Your task to perform on an android device: uninstall "Paramount+ | Peak Streaming" Image 0: 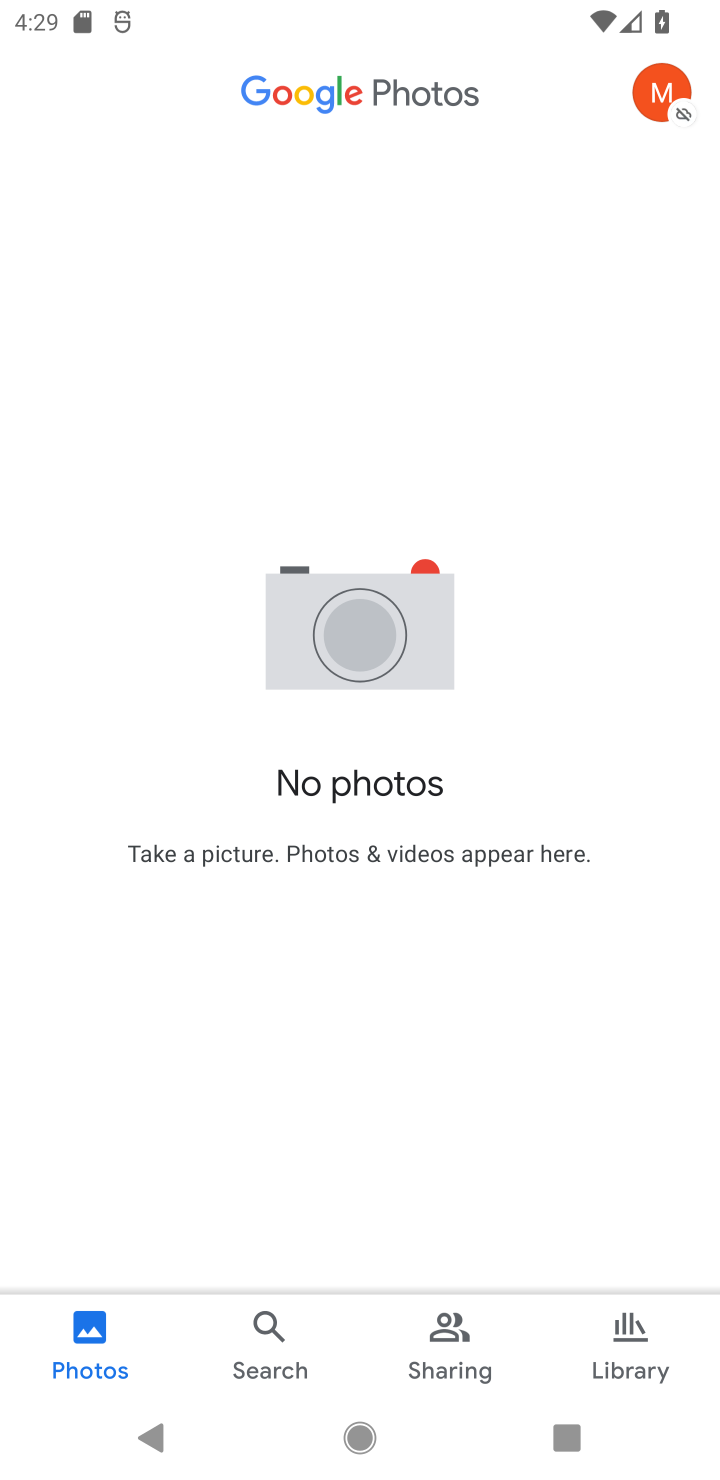
Step 0: press home button
Your task to perform on an android device: uninstall "Paramount+ | Peak Streaming" Image 1: 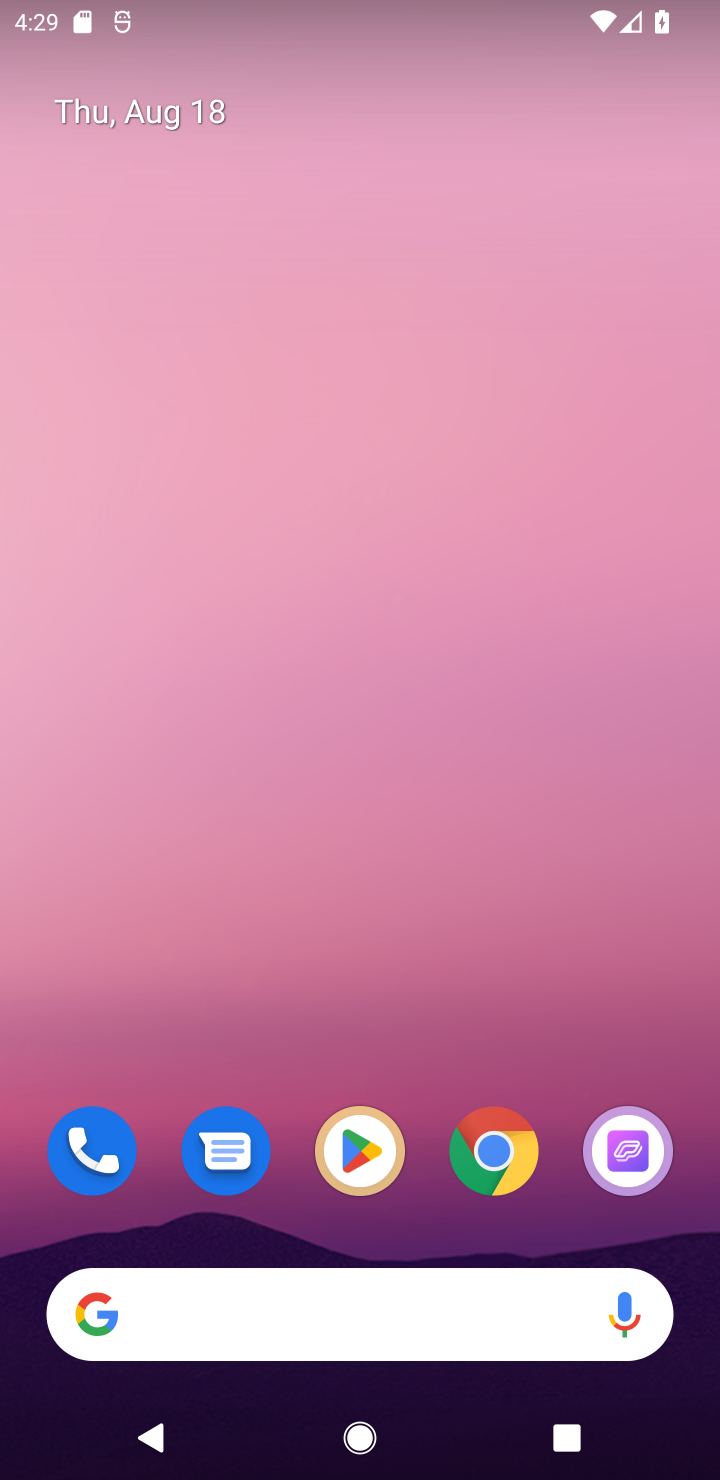
Step 1: click (364, 118)
Your task to perform on an android device: uninstall "Paramount+ | Peak Streaming" Image 2: 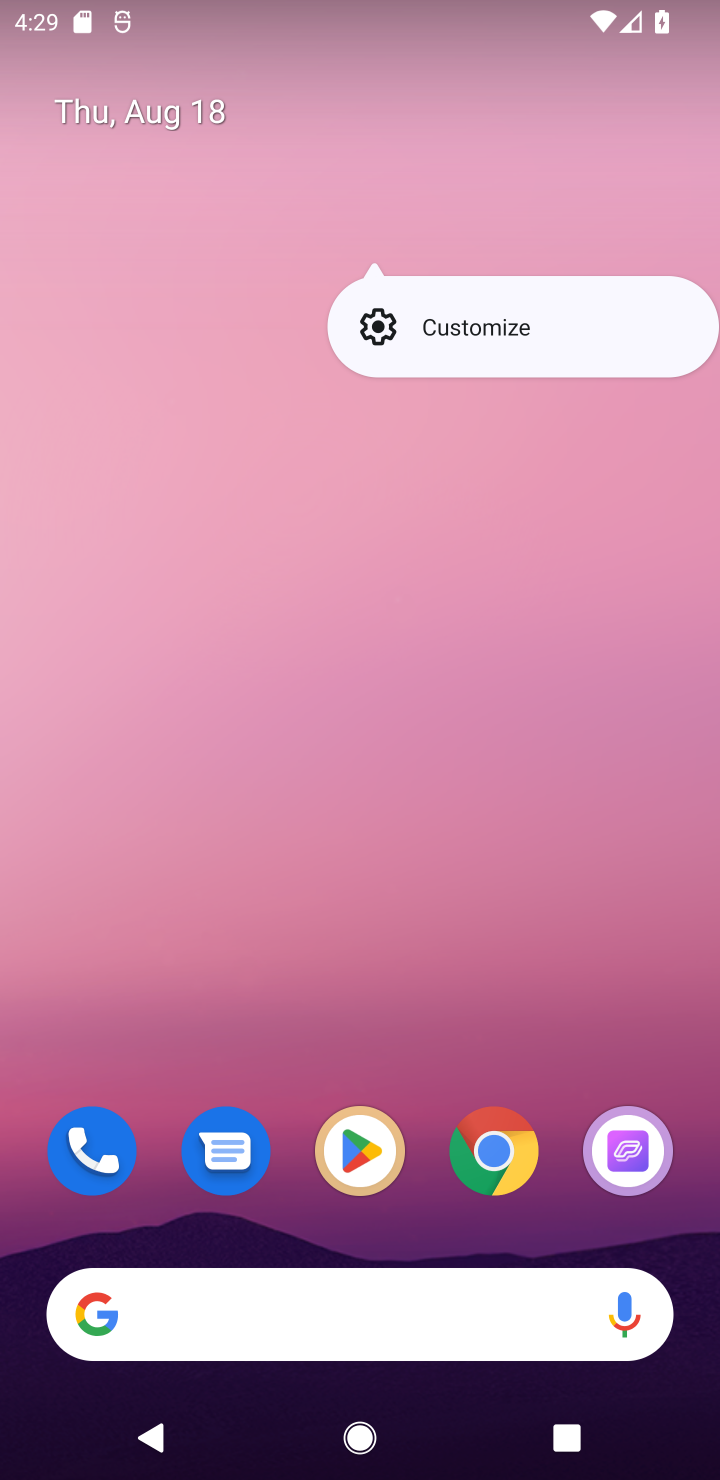
Step 2: click (232, 674)
Your task to perform on an android device: uninstall "Paramount+ | Peak Streaming" Image 3: 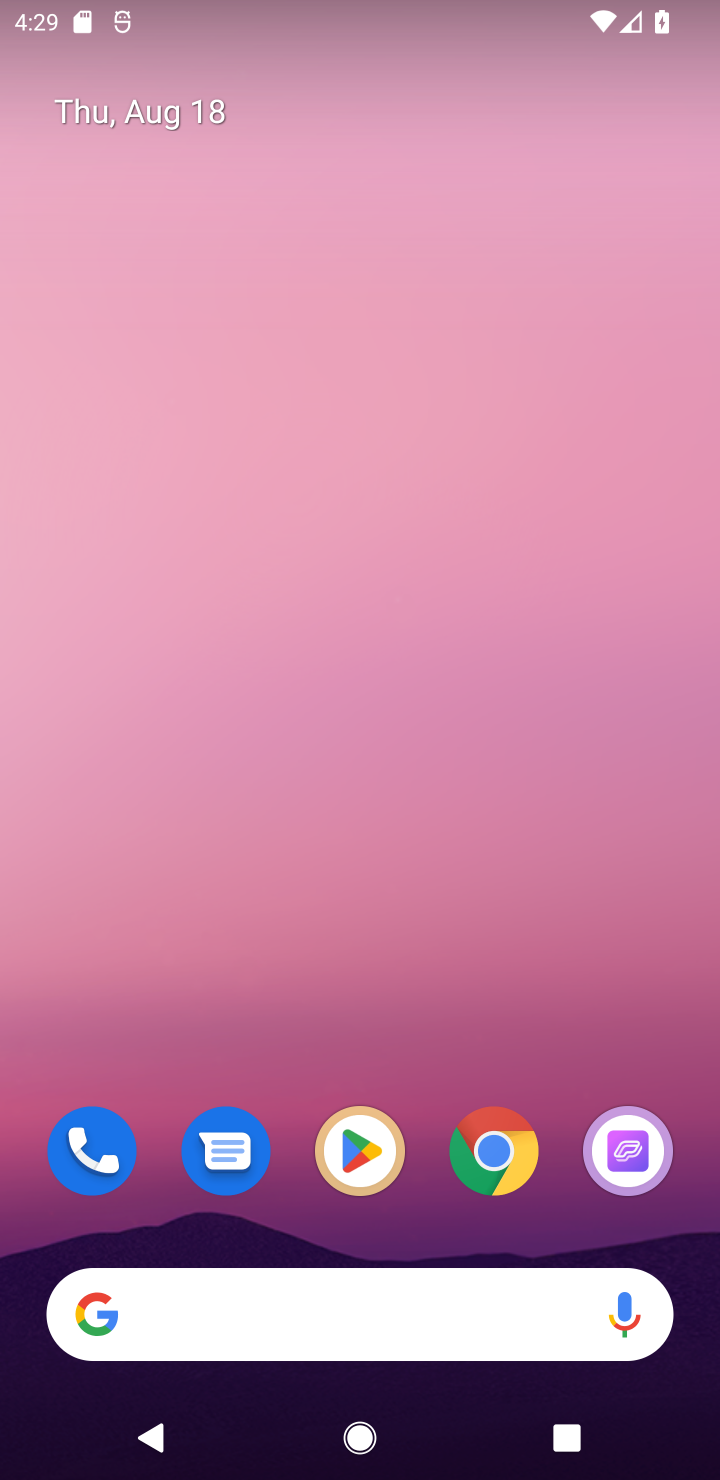
Step 3: drag from (310, 1238) to (254, 59)
Your task to perform on an android device: uninstall "Paramount+ | Peak Streaming" Image 4: 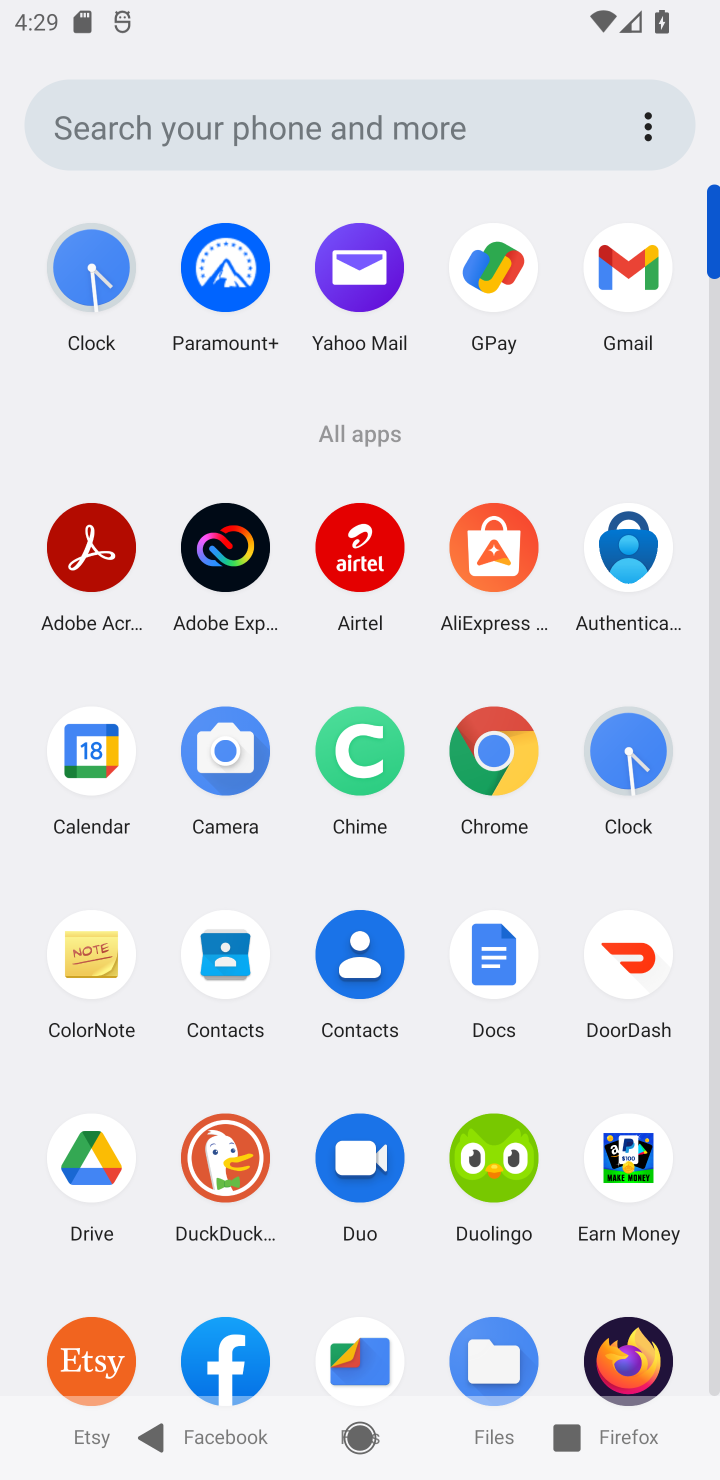
Step 4: click (231, 250)
Your task to perform on an android device: uninstall "Paramount+ | Peak Streaming" Image 5: 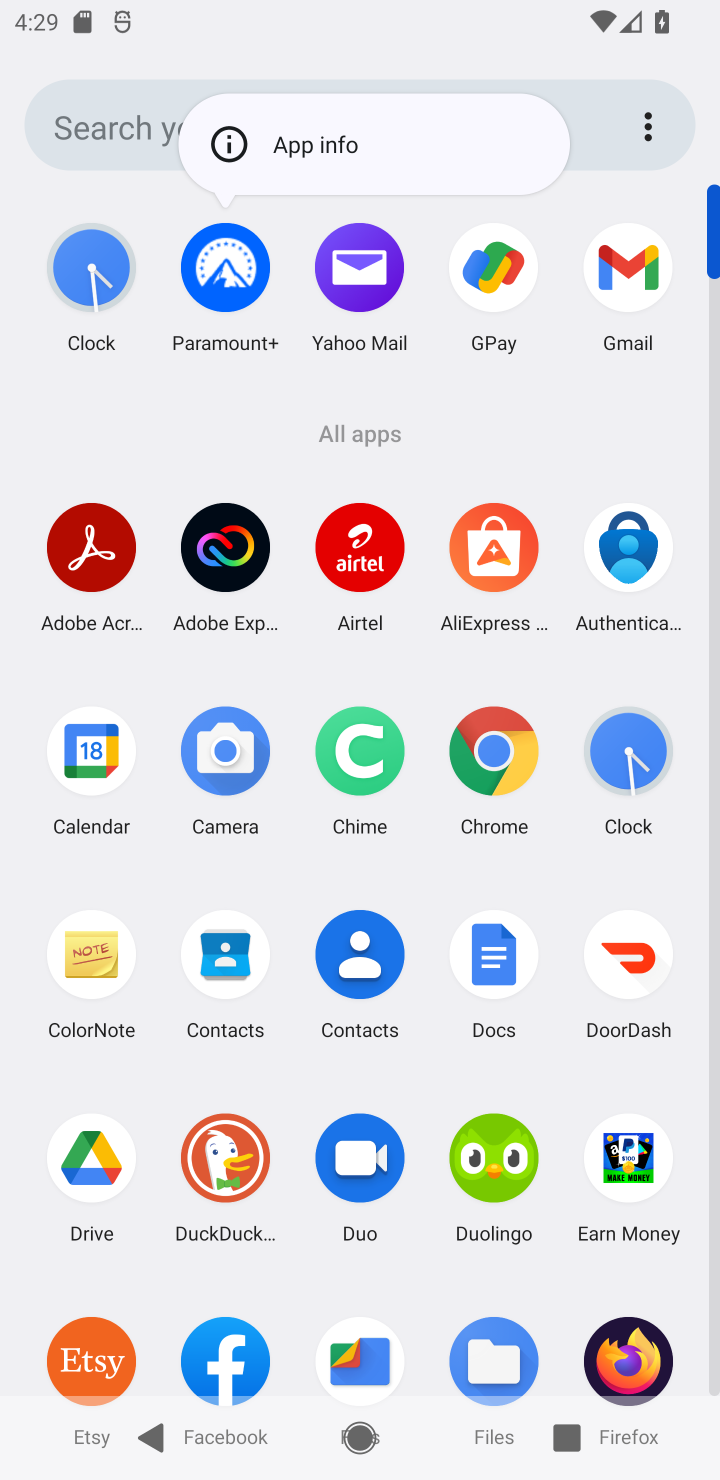
Step 5: click (253, 159)
Your task to perform on an android device: uninstall "Paramount+ | Peak Streaming" Image 6: 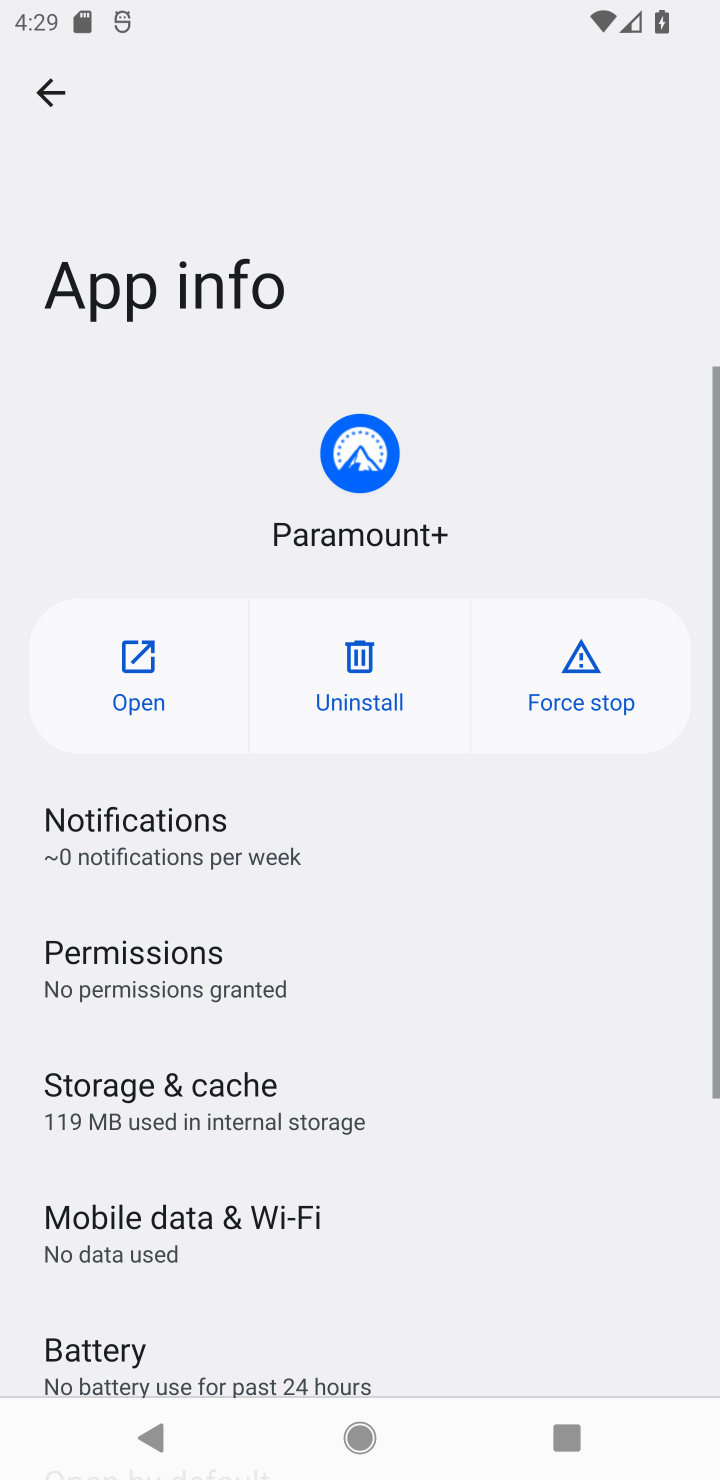
Step 6: click (350, 640)
Your task to perform on an android device: uninstall "Paramount+ | Peak Streaming" Image 7: 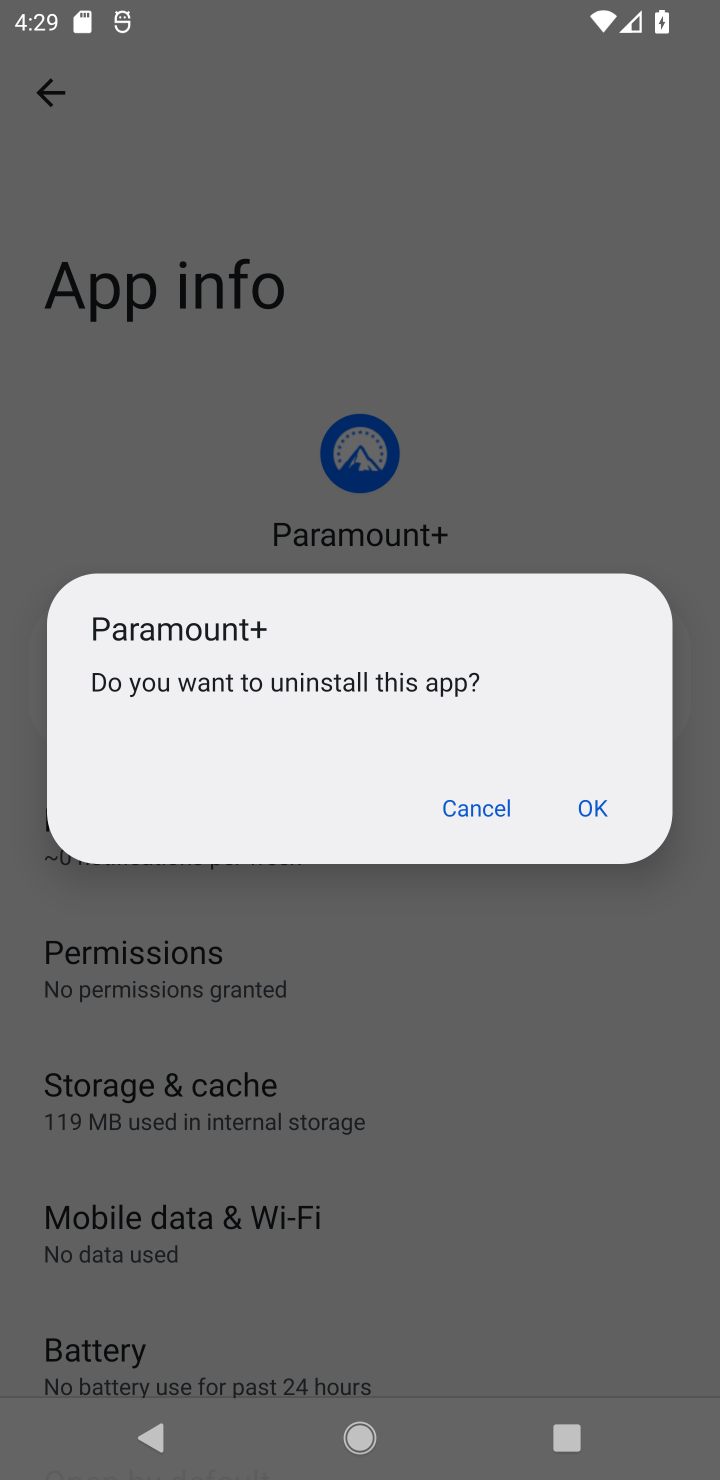
Step 7: click (594, 808)
Your task to perform on an android device: uninstall "Paramount+ | Peak Streaming" Image 8: 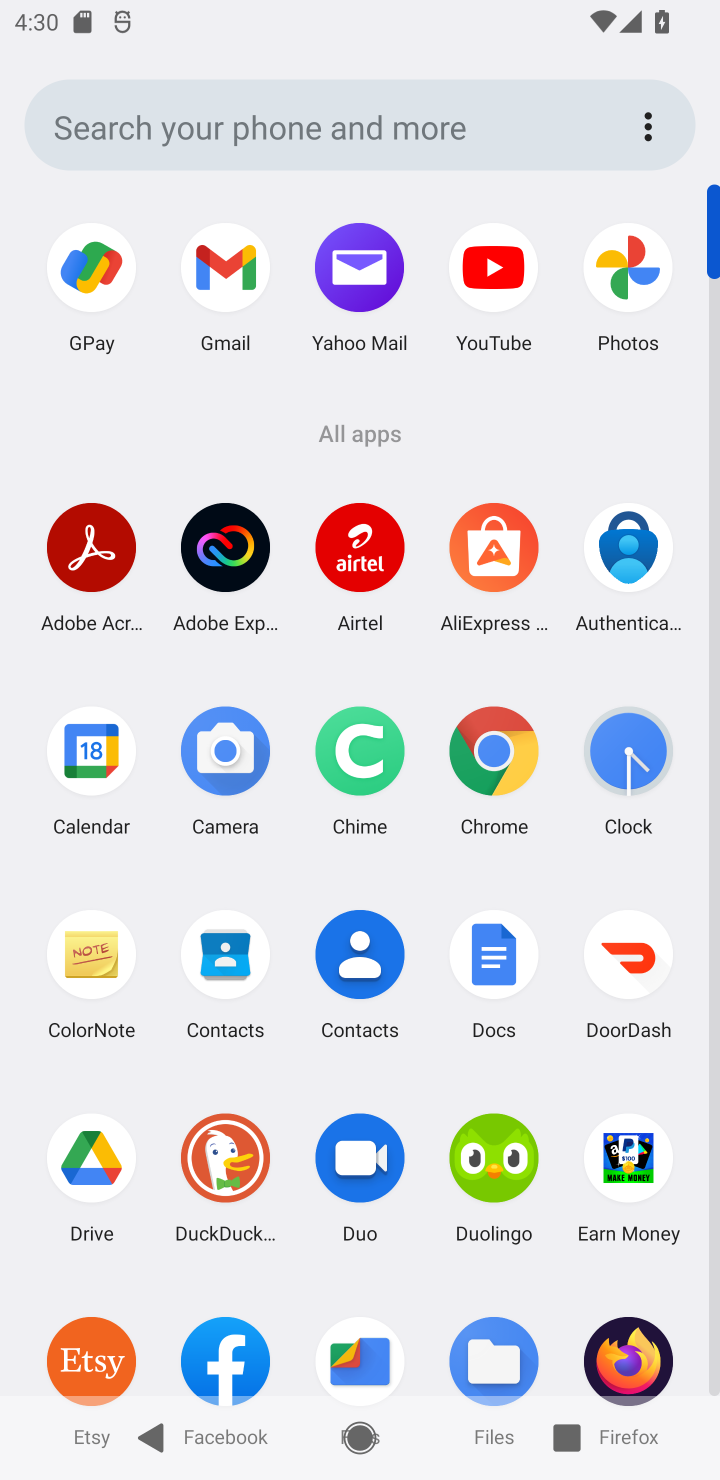
Step 8: task complete